Your task to perform on an android device: check the backup settings in the google photos Image 0: 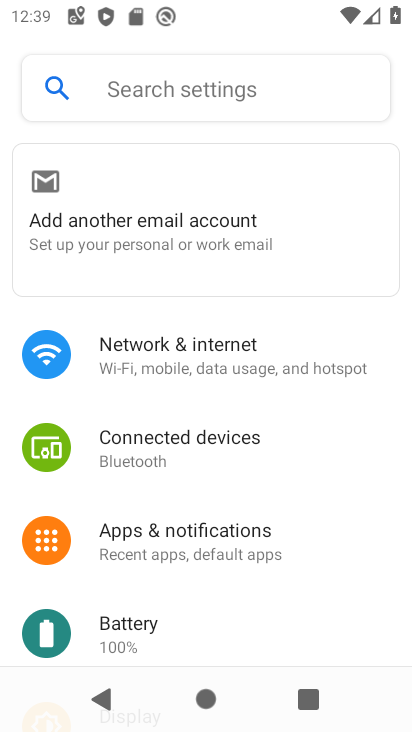
Step 0: press home button
Your task to perform on an android device: check the backup settings in the google photos Image 1: 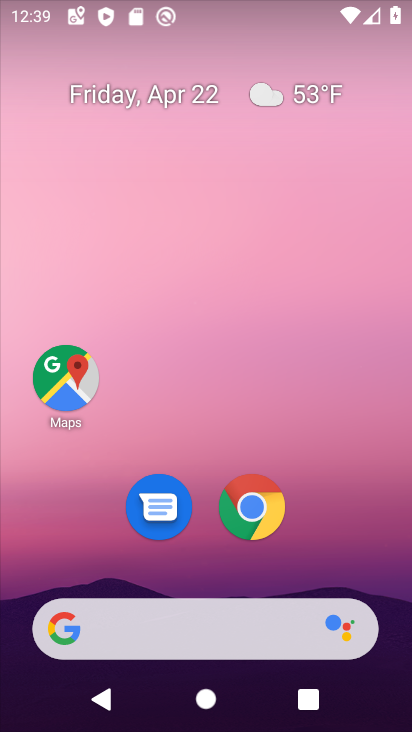
Step 1: drag from (295, 538) to (230, 70)
Your task to perform on an android device: check the backup settings in the google photos Image 2: 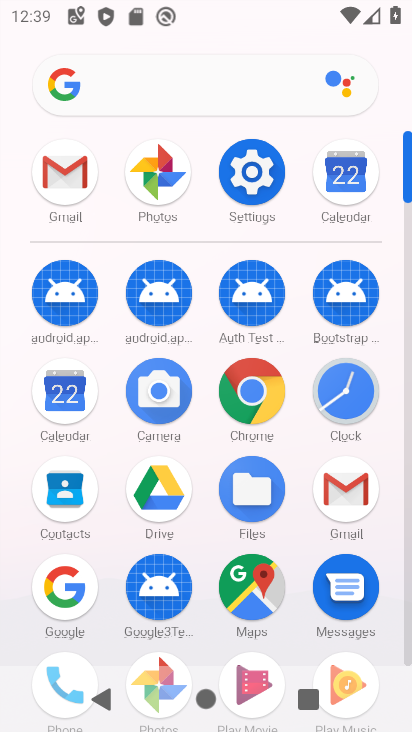
Step 2: click (166, 175)
Your task to perform on an android device: check the backup settings in the google photos Image 3: 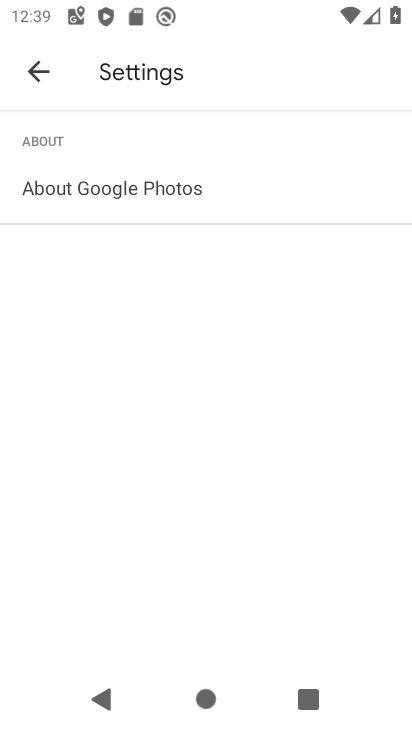
Step 3: click (39, 74)
Your task to perform on an android device: check the backup settings in the google photos Image 4: 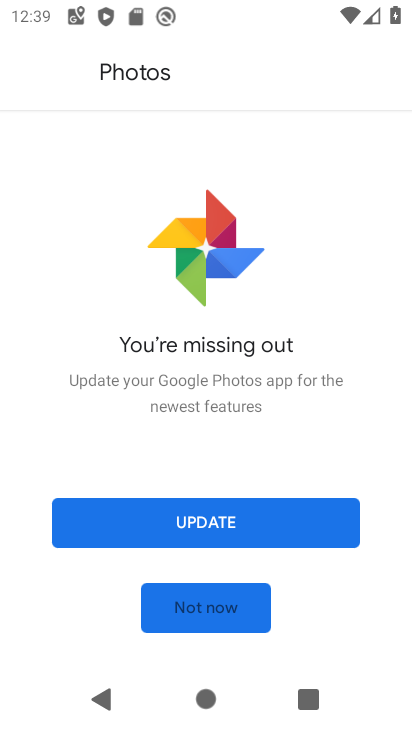
Step 4: click (181, 137)
Your task to perform on an android device: check the backup settings in the google photos Image 5: 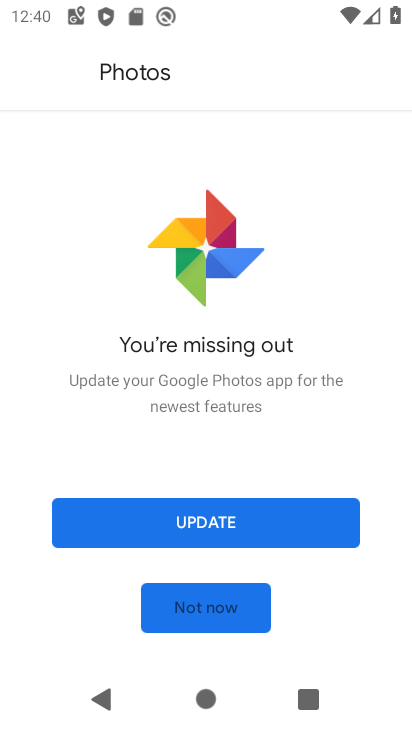
Step 5: click (214, 635)
Your task to perform on an android device: check the backup settings in the google photos Image 6: 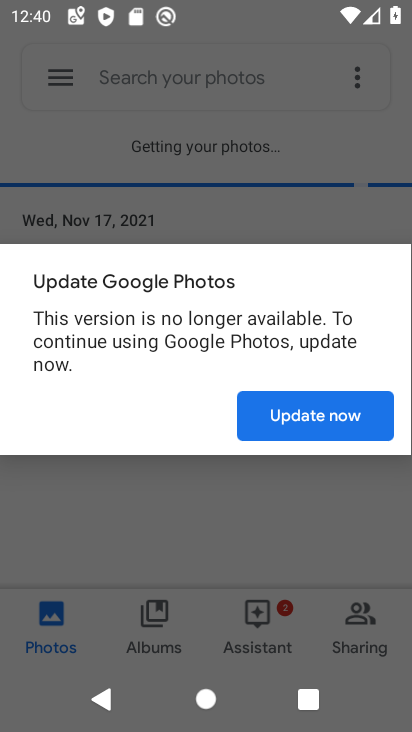
Step 6: click (308, 423)
Your task to perform on an android device: check the backup settings in the google photos Image 7: 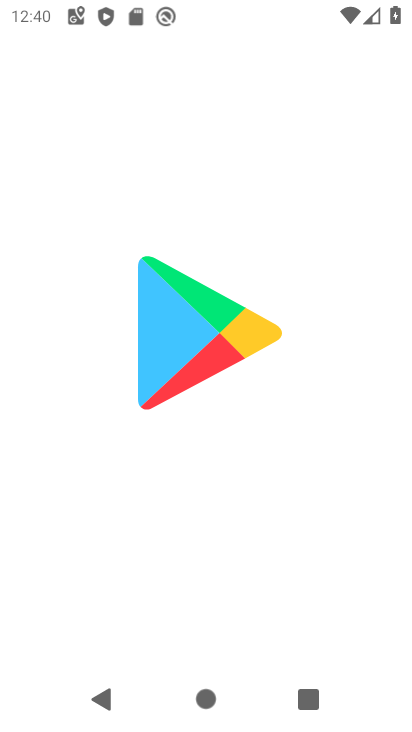
Step 7: press back button
Your task to perform on an android device: check the backup settings in the google photos Image 8: 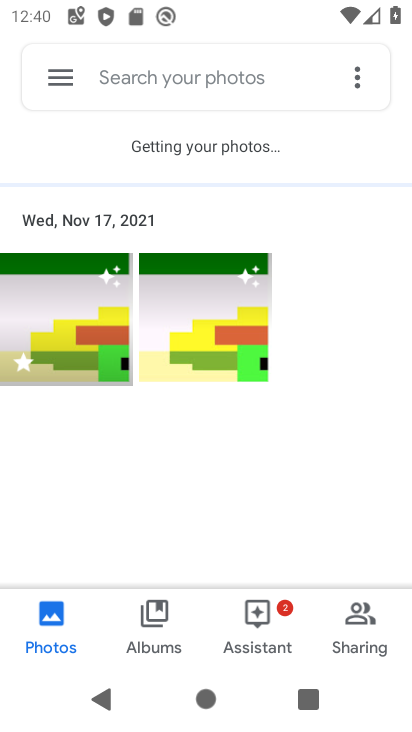
Step 8: click (354, 79)
Your task to perform on an android device: check the backup settings in the google photos Image 9: 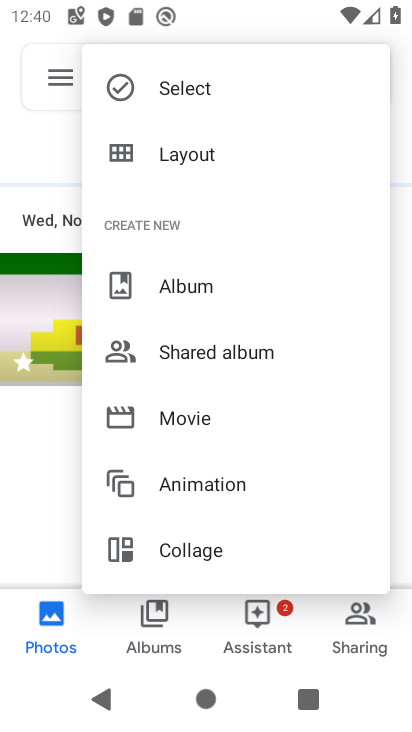
Step 9: drag from (223, 492) to (221, 122)
Your task to perform on an android device: check the backup settings in the google photos Image 10: 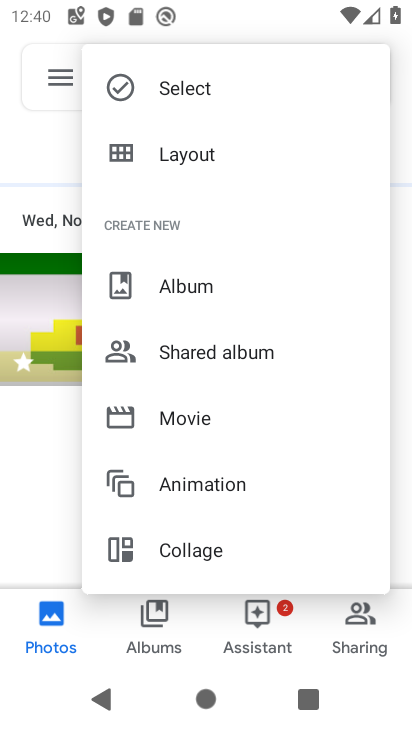
Step 10: click (53, 78)
Your task to perform on an android device: check the backup settings in the google photos Image 11: 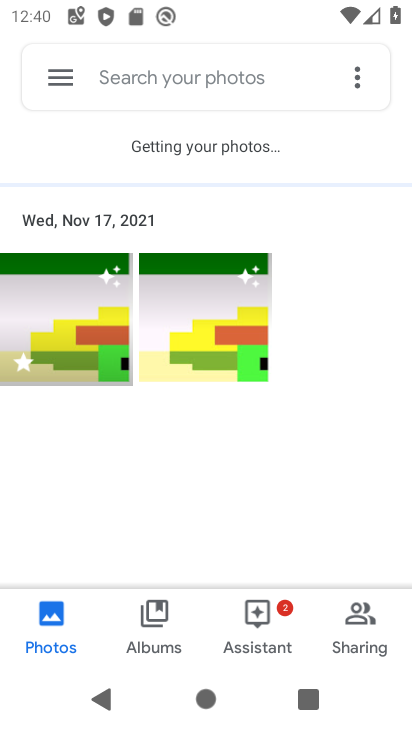
Step 11: click (57, 78)
Your task to perform on an android device: check the backup settings in the google photos Image 12: 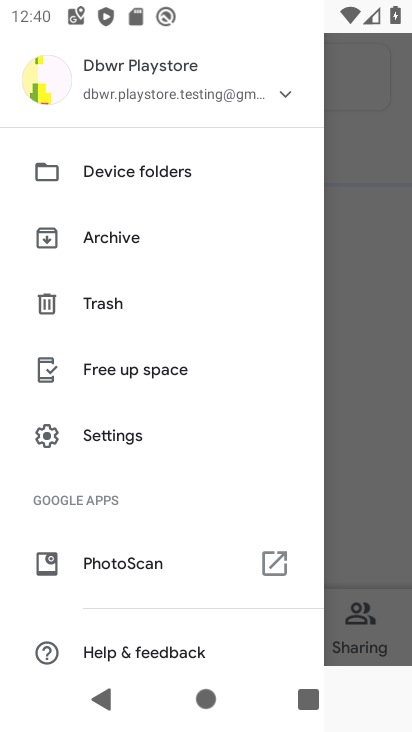
Step 12: click (128, 436)
Your task to perform on an android device: check the backup settings in the google photos Image 13: 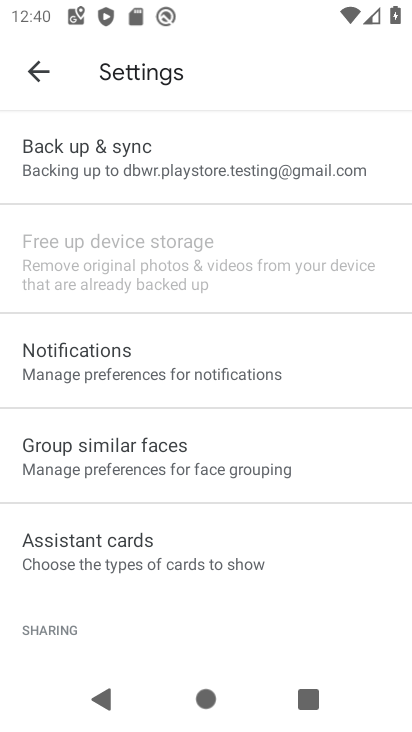
Step 13: click (194, 168)
Your task to perform on an android device: check the backup settings in the google photos Image 14: 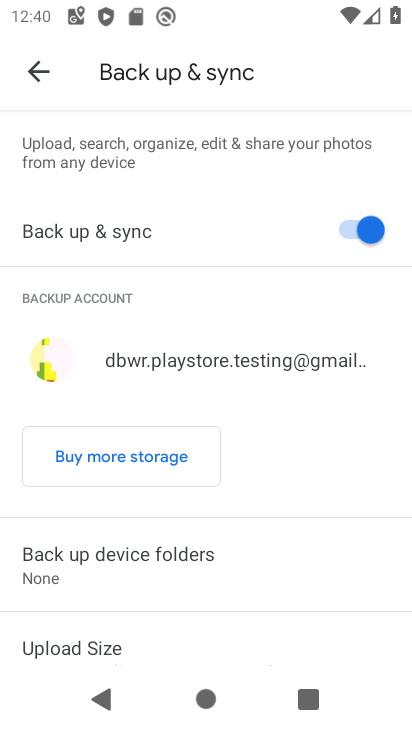
Step 14: task complete